Your task to perform on an android device: turn off location Image 0: 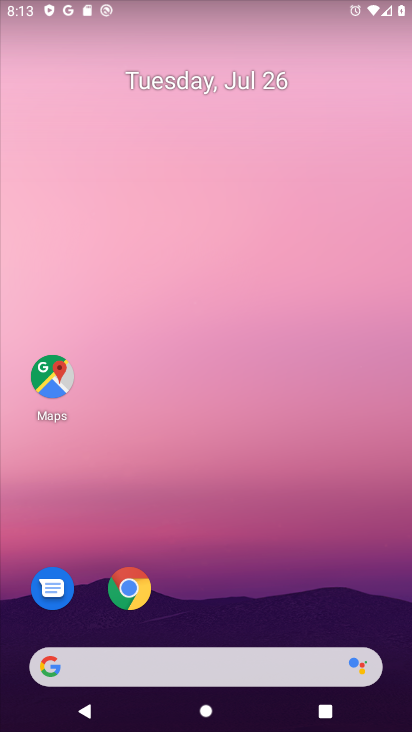
Step 0: drag from (200, 656) to (233, 159)
Your task to perform on an android device: turn off location Image 1: 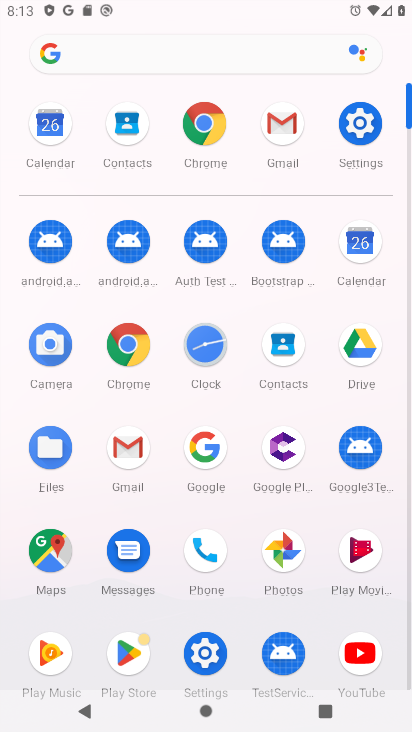
Step 1: click (365, 151)
Your task to perform on an android device: turn off location Image 2: 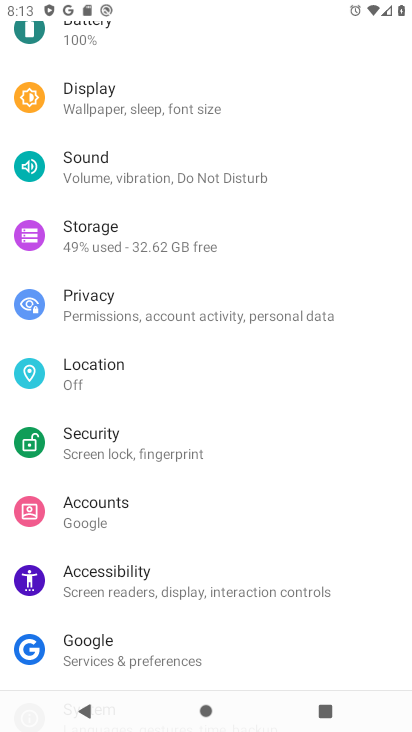
Step 2: click (123, 387)
Your task to perform on an android device: turn off location Image 3: 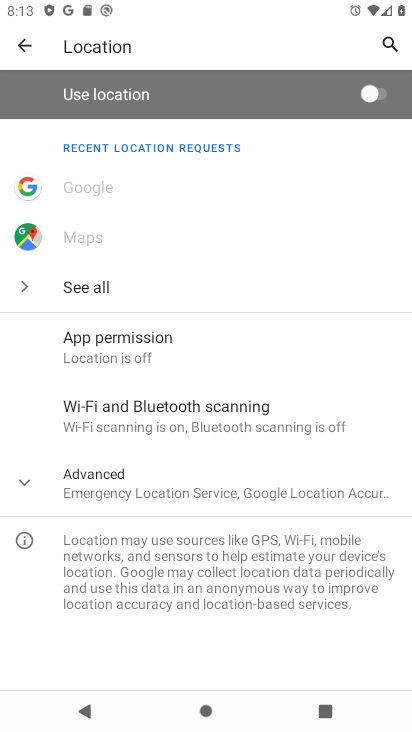
Step 3: task complete